Your task to perform on an android device: Open Google Image 0: 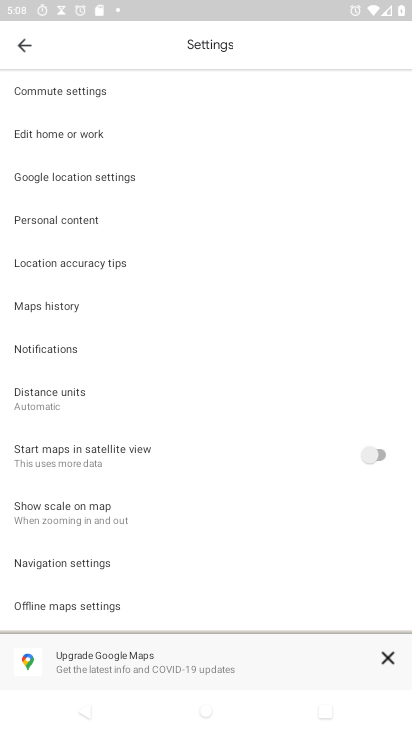
Step 0: press home button
Your task to perform on an android device: Open Google Image 1: 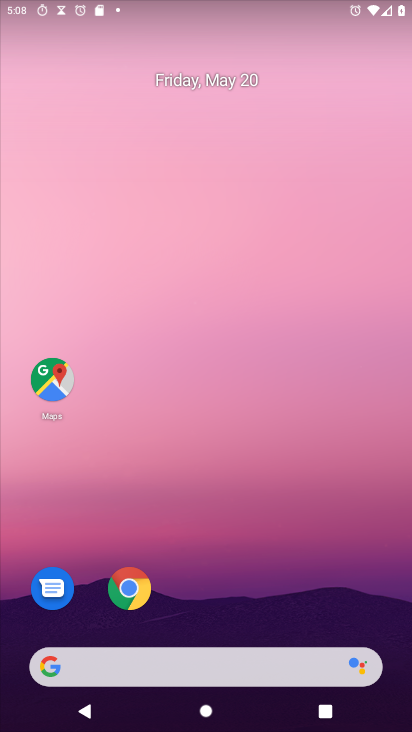
Step 1: drag from (241, 598) to (247, 62)
Your task to perform on an android device: Open Google Image 2: 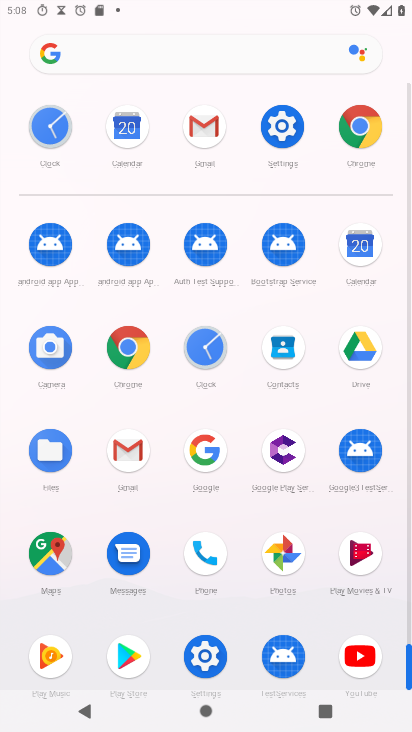
Step 2: click (201, 444)
Your task to perform on an android device: Open Google Image 3: 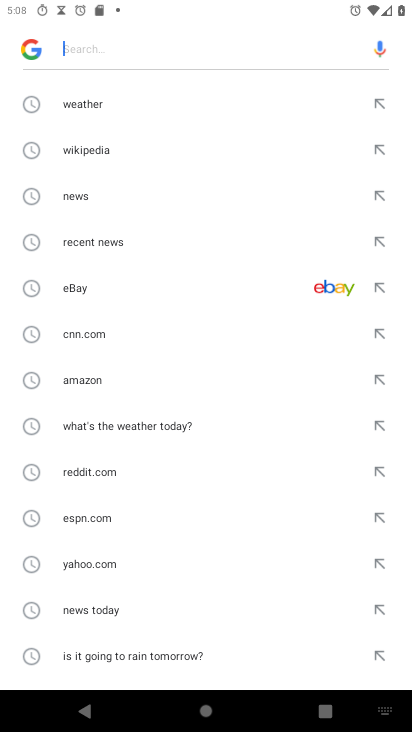
Step 3: task complete